Your task to perform on an android device: Open Youtube and go to "Your channel" Image 0: 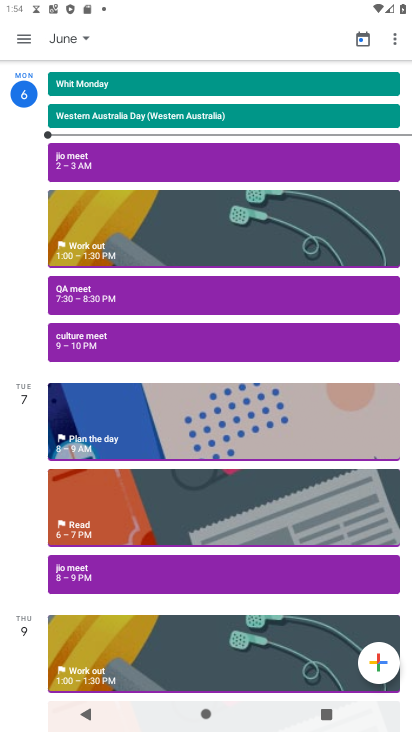
Step 0: press home button
Your task to perform on an android device: Open Youtube and go to "Your channel" Image 1: 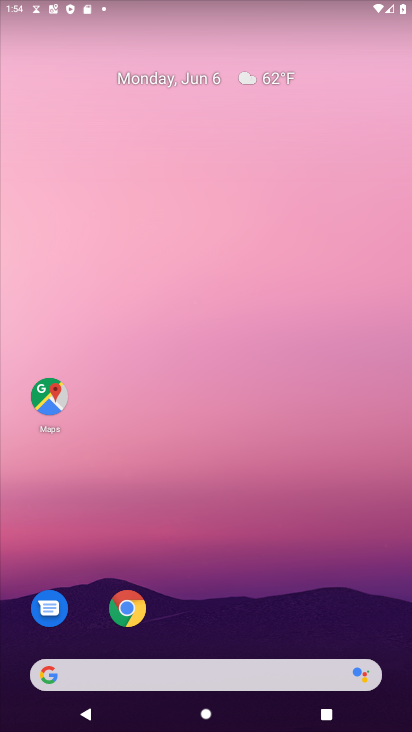
Step 1: drag from (286, 603) to (266, 36)
Your task to perform on an android device: Open Youtube and go to "Your channel" Image 2: 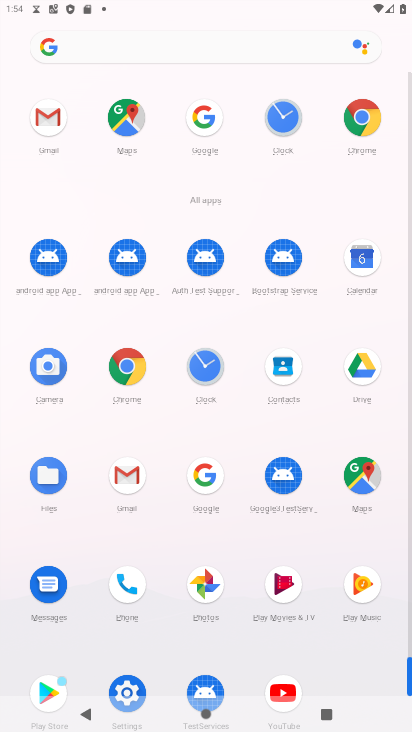
Step 2: click (284, 691)
Your task to perform on an android device: Open Youtube and go to "Your channel" Image 3: 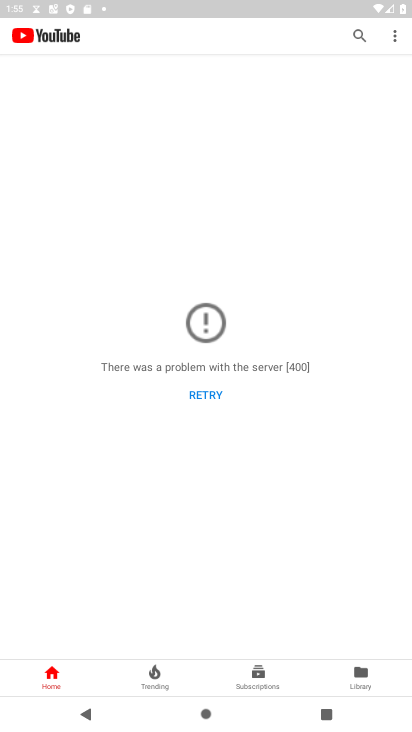
Step 3: click (397, 32)
Your task to perform on an android device: Open Youtube and go to "Your channel" Image 4: 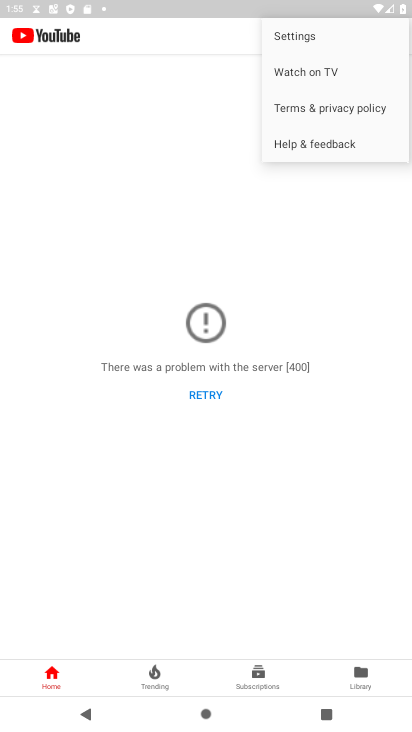
Step 4: click (302, 38)
Your task to perform on an android device: Open Youtube and go to "Your channel" Image 5: 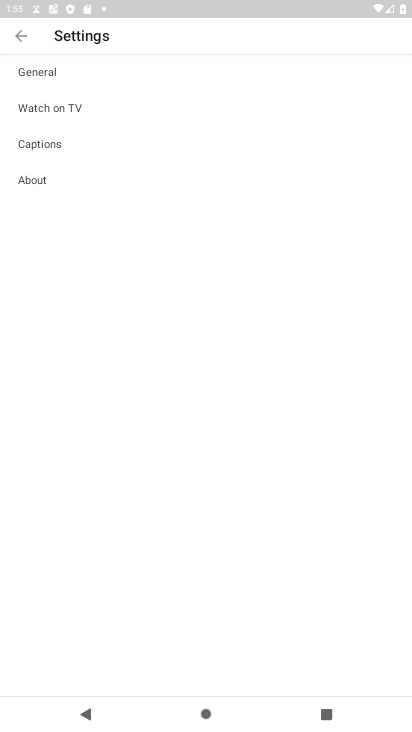
Step 5: click (25, 31)
Your task to perform on an android device: Open Youtube and go to "Your channel" Image 6: 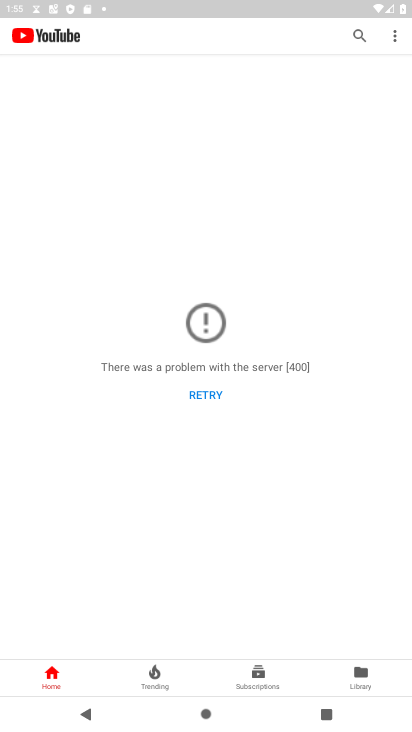
Step 6: click (369, 677)
Your task to perform on an android device: Open Youtube and go to "Your channel" Image 7: 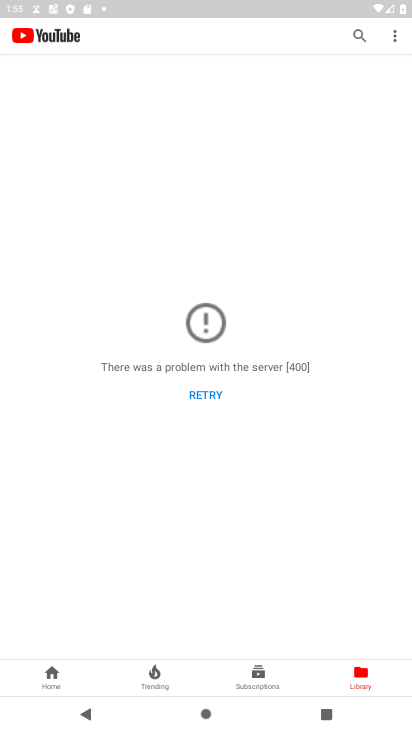
Step 7: task complete